Your task to perform on an android device: Open internet settings Image 0: 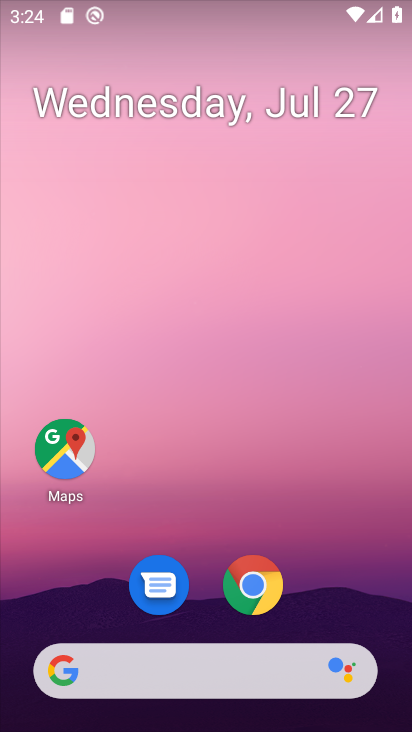
Step 0: drag from (301, 476) to (208, 101)
Your task to perform on an android device: Open internet settings Image 1: 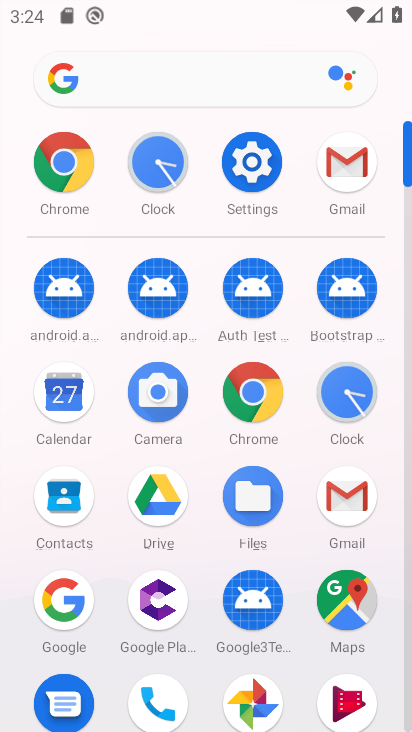
Step 1: click (261, 169)
Your task to perform on an android device: Open internet settings Image 2: 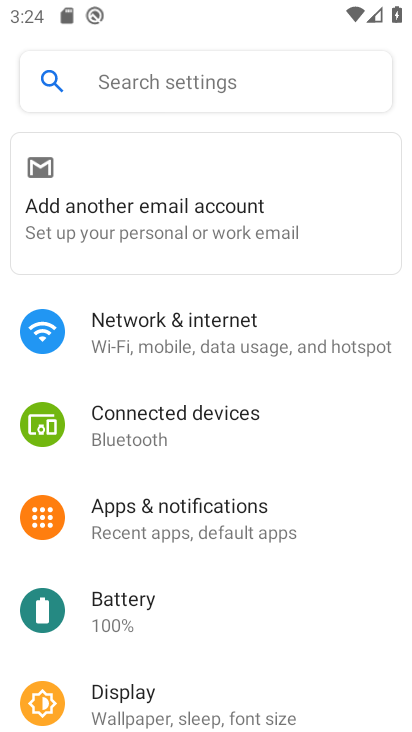
Step 2: click (270, 335)
Your task to perform on an android device: Open internet settings Image 3: 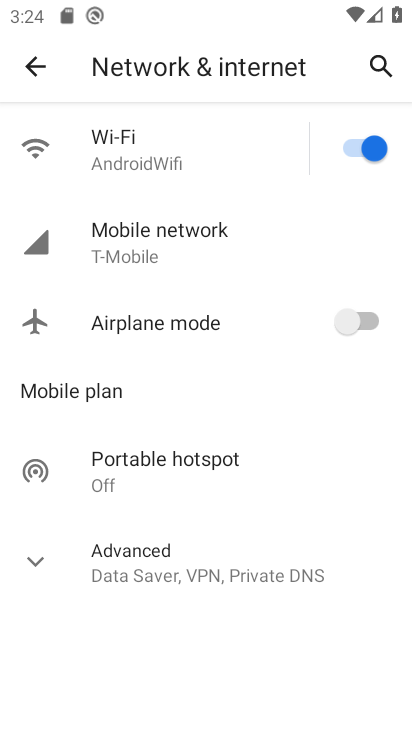
Step 3: task complete